Your task to perform on an android device: turn off sleep mode Image 0: 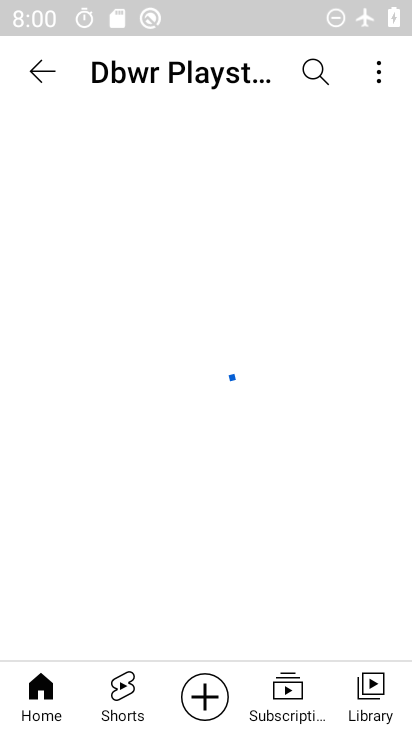
Step 0: press home button
Your task to perform on an android device: turn off sleep mode Image 1: 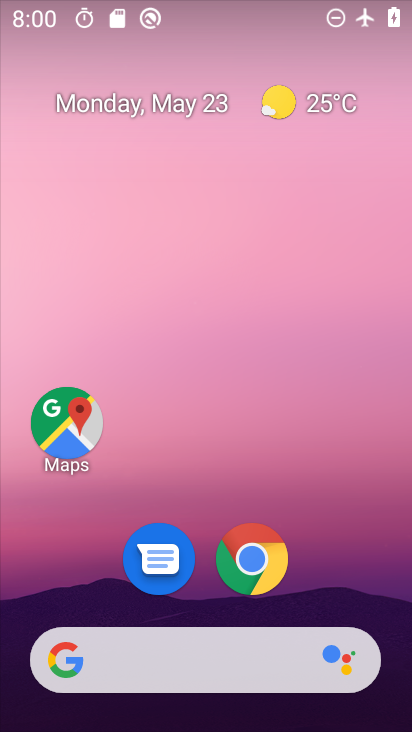
Step 1: drag from (397, 660) to (281, 11)
Your task to perform on an android device: turn off sleep mode Image 2: 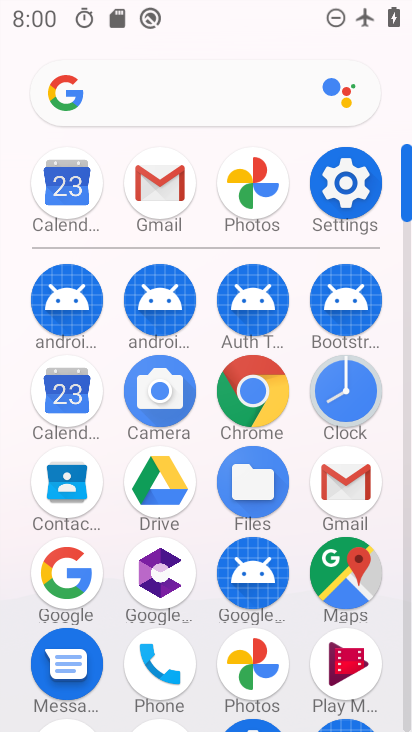
Step 2: click (334, 169)
Your task to perform on an android device: turn off sleep mode Image 3: 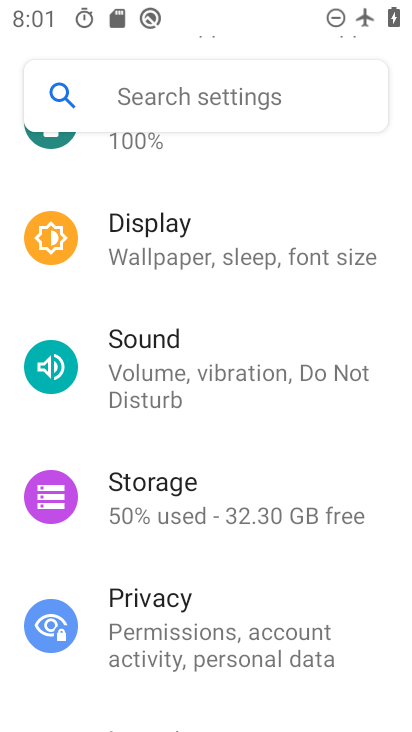
Step 3: task complete